Your task to perform on an android device: turn smart compose on in the gmail app Image 0: 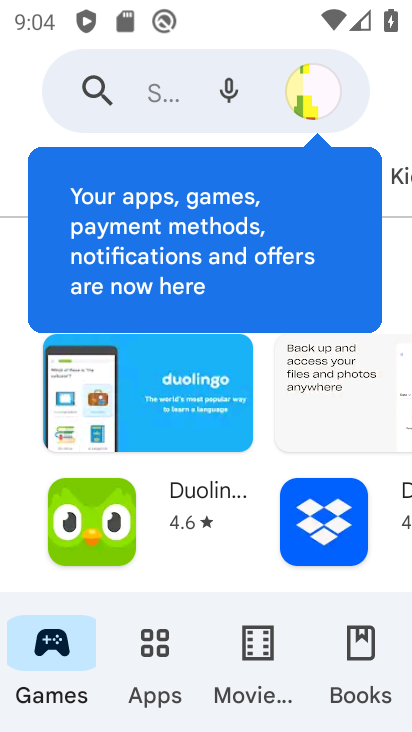
Step 0: press home button
Your task to perform on an android device: turn smart compose on in the gmail app Image 1: 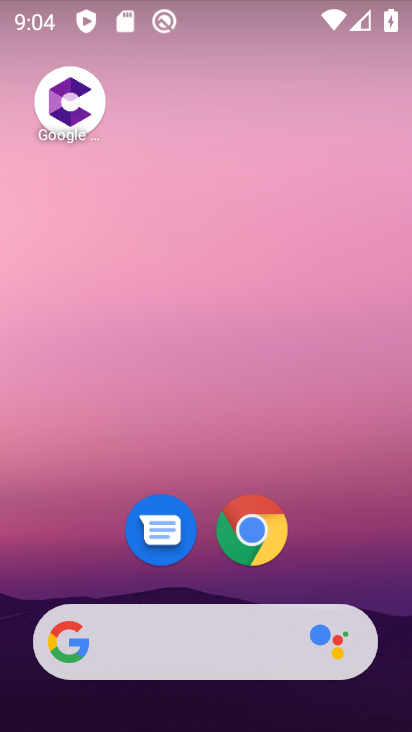
Step 1: drag from (379, 553) to (393, 134)
Your task to perform on an android device: turn smart compose on in the gmail app Image 2: 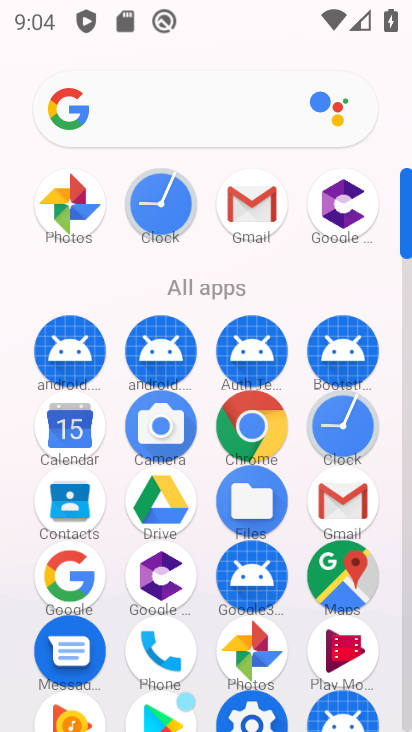
Step 2: click (354, 493)
Your task to perform on an android device: turn smart compose on in the gmail app Image 3: 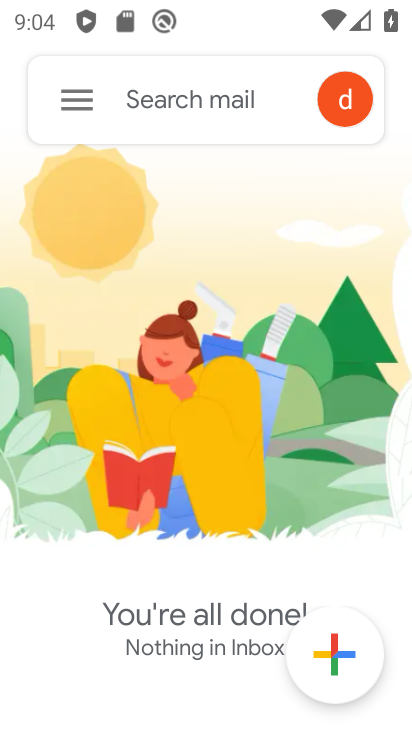
Step 3: click (78, 101)
Your task to perform on an android device: turn smart compose on in the gmail app Image 4: 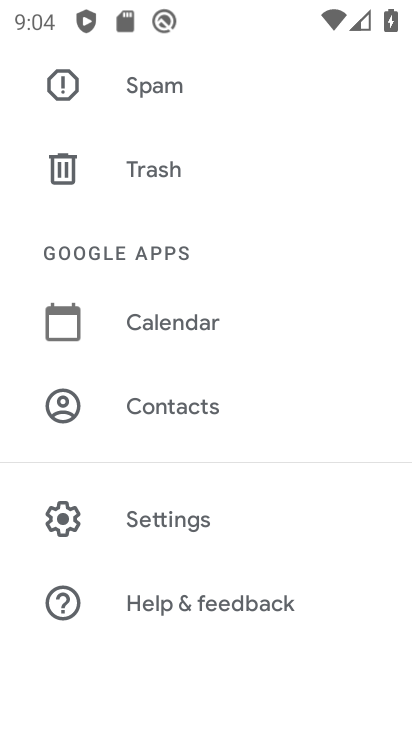
Step 4: click (202, 531)
Your task to perform on an android device: turn smart compose on in the gmail app Image 5: 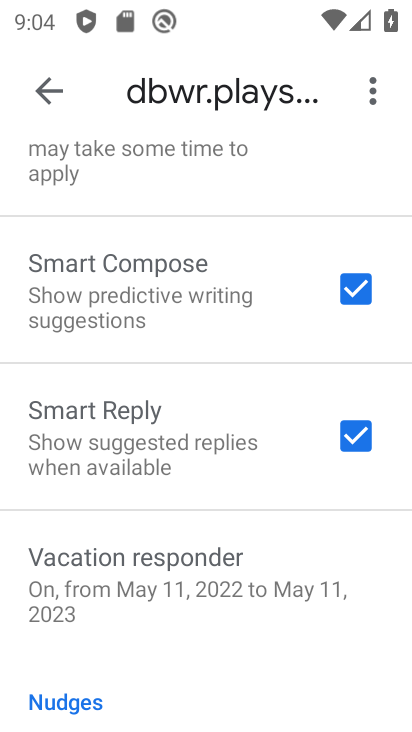
Step 5: task complete